Your task to perform on an android device: turn notification dots on Image 0: 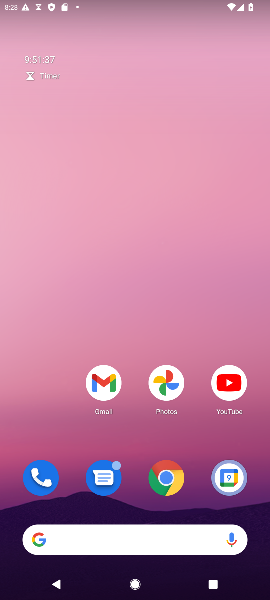
Step 0: drag from (138, 450) to (130, 223)
Your task to perform on an android device: turn notification dots on Image 1: 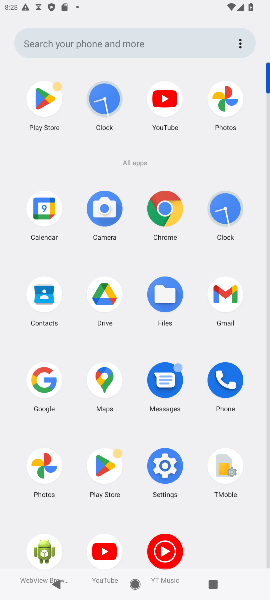
Step 1: click (157, 465)
Your task to perform on an android device: turn notification dots on Image 2: 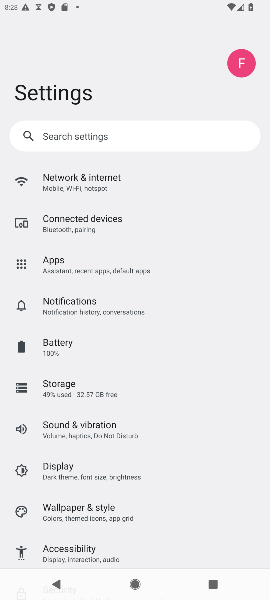
Step 2: click (92, 307)
Your task to perform on an android device: turn notification dots on Image 3: 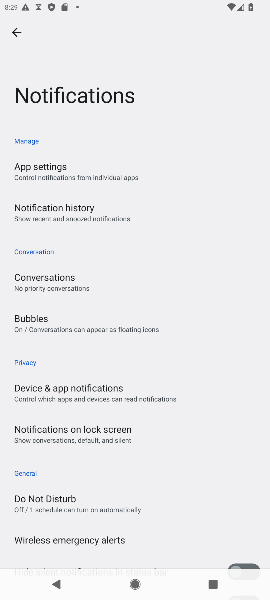
Step 3: task complete